Your task to perform on an android device: see creations saved in the google photos Image 0: 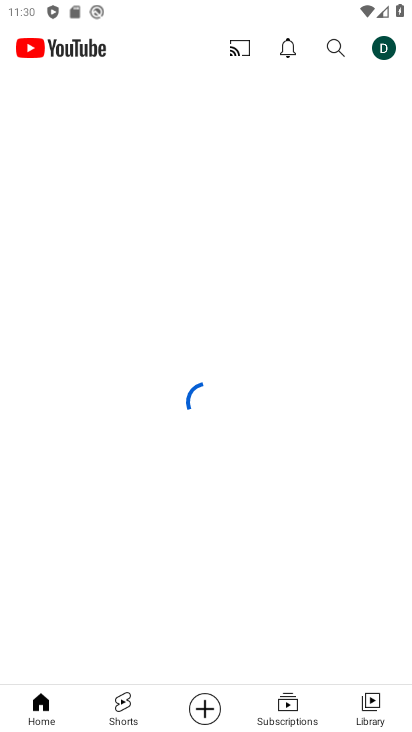
Step 0: press home button
Your task to perform on an android device: see creations saved in the google photos Image 1: 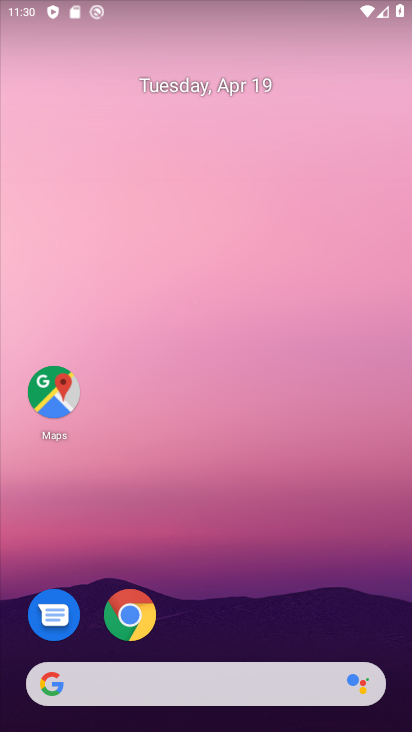
Step 1: drag from (211, 383) to (216, 101)
Your task to perform on an android device: see creations saved in the google photos Image 2: 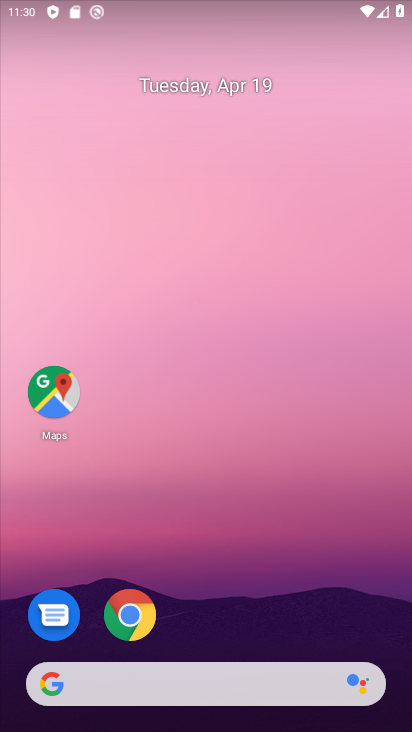
Step 2: drag from (259, 618) to (262, 0)
Your task to perform on an android device: see creations saved in the google photos Image 3: 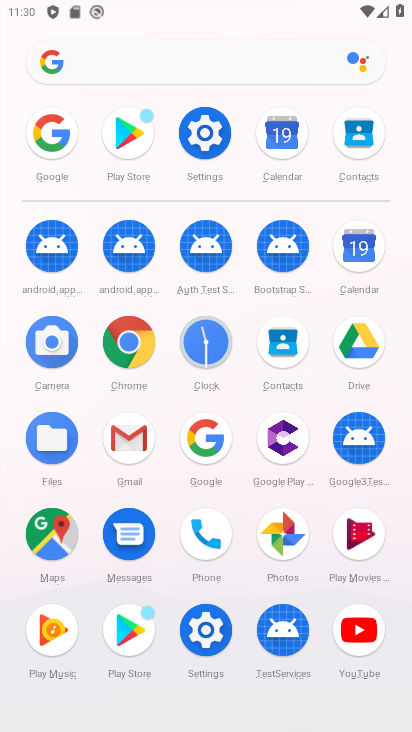
Step 3: click (284, 536)
Your task to perform on an android device: see creations saved in the google photos Image 4: 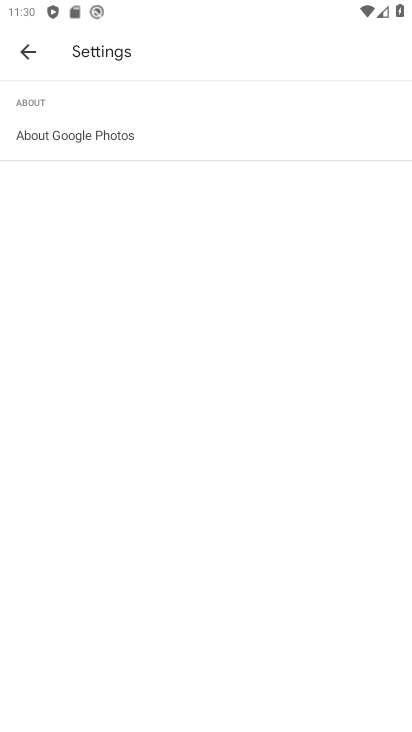
Step 4: press back button
Your task to perform on an android device: see creations saved in the google photos Image 5: 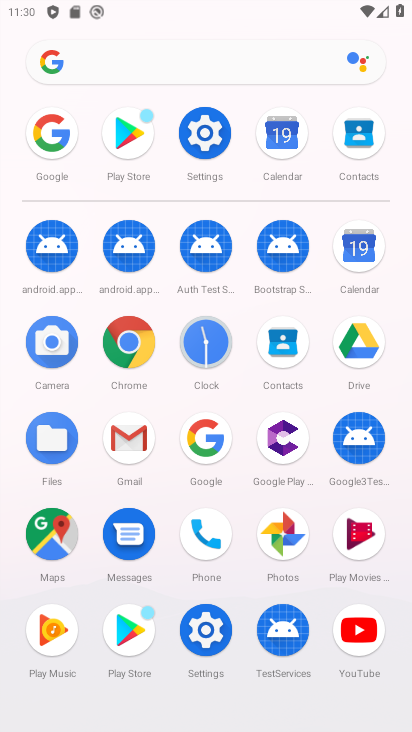
Step 5: click (285, 535)
Your task to perform on an android device: see creations saved in the google photos Image 6: 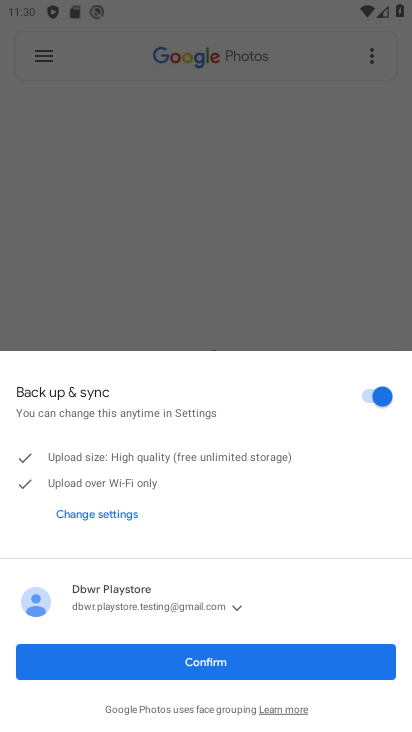
Step 6: click (230, 663)
Your task to perform on an android device: see creations saved in the google photos Image 7: 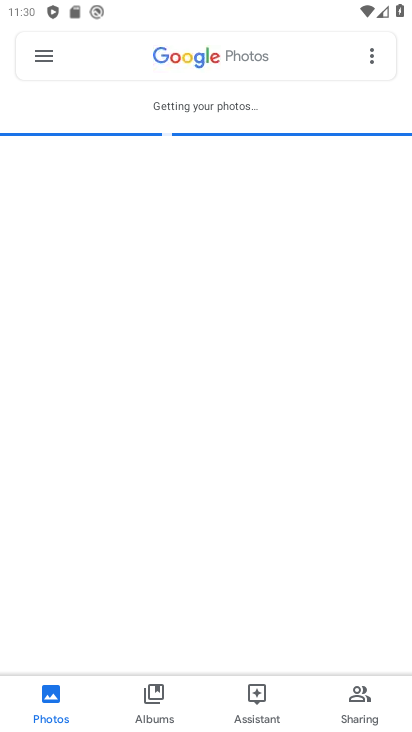
Step 7: click (252, 711)
Your task to perform on an android device: see creations saved in the google photos Image 8: 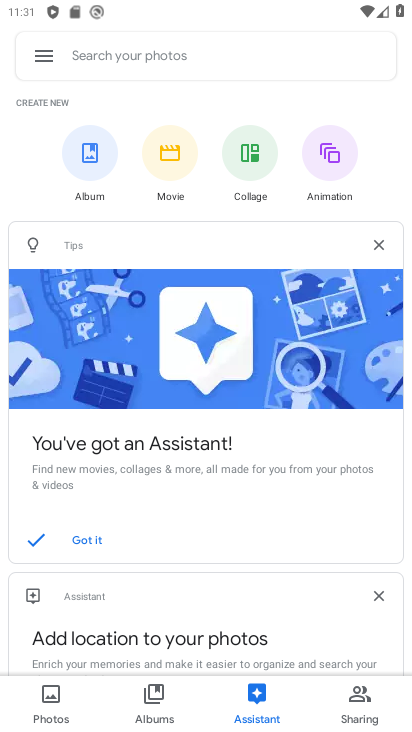
Step 8: task complete